Your task to perform on an android device: Go to Reddit.com Image 0: 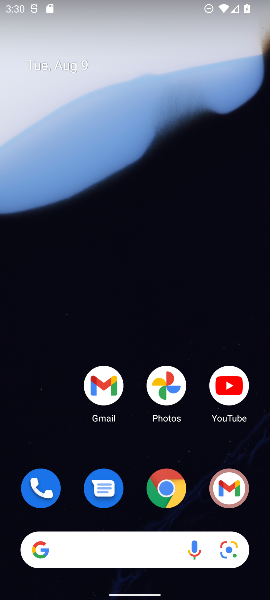
Step 0: drag from (194, 353) to (142, 30)
Your task to perform on an android device: Go to Reddit.com Image 1: 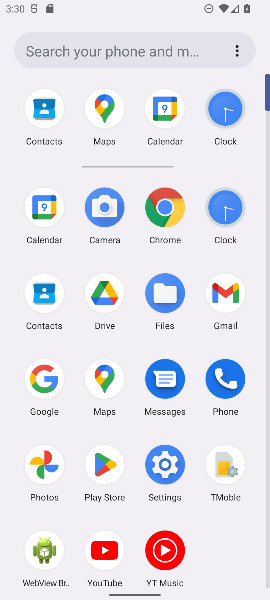
Step 1: click (173, 210)
Your task to perform on an android device: Go to Reddit.com Image 2: 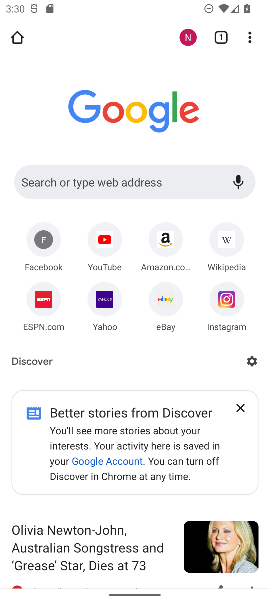
Step 2: click (153, 177)
Your task to perform on an android device: Go to Reddit.com Image 3: 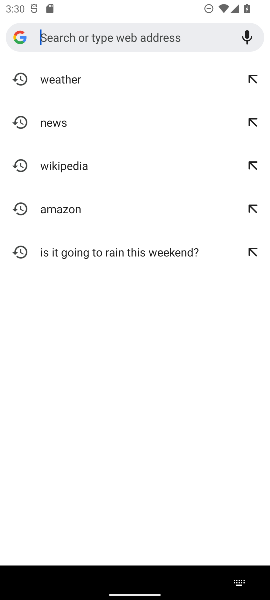
Step 3: type "reddit.com"
Your task to perform on an android device: Go to Reddit.com Image 4: 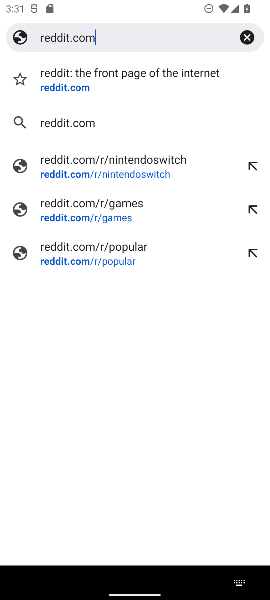
Step 4: click (36, 75)
Your task to perform on an android device: Go to Reddit.com Image 5: 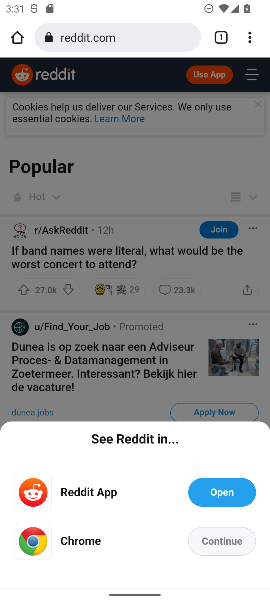
Step 5: task complete